Your task to perform on an android device: Go to calendar. Show me events next week Image 0: 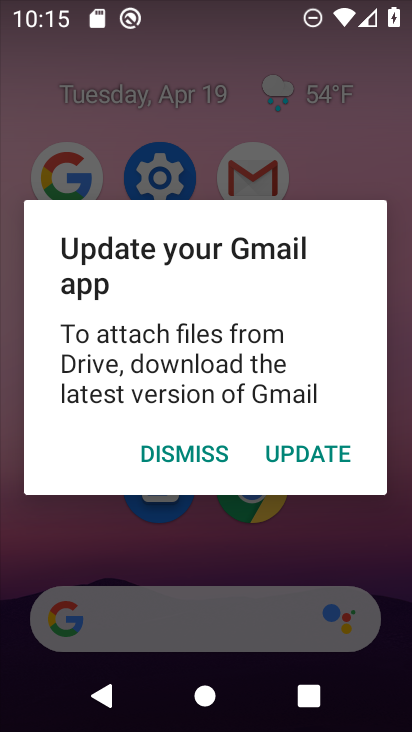
Step 0: press home button
Your task to perform on an android device: Go to calendar. Show me events next week Image 1: 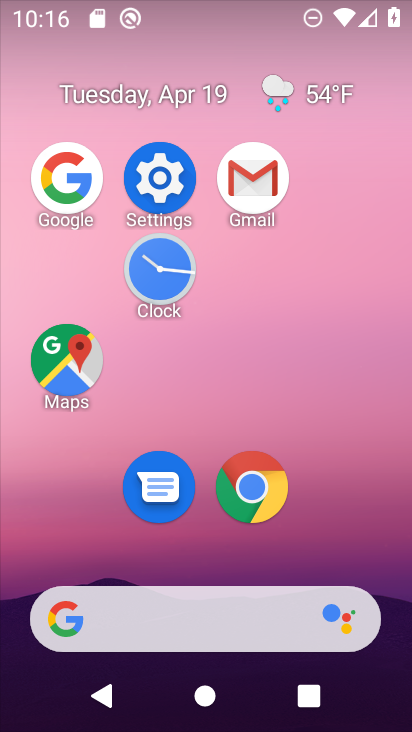
Step 1: drag from (240, 544) to (262, 103)
Your task to perform on an android device: Go to calendar. Show me events next week Image 2: 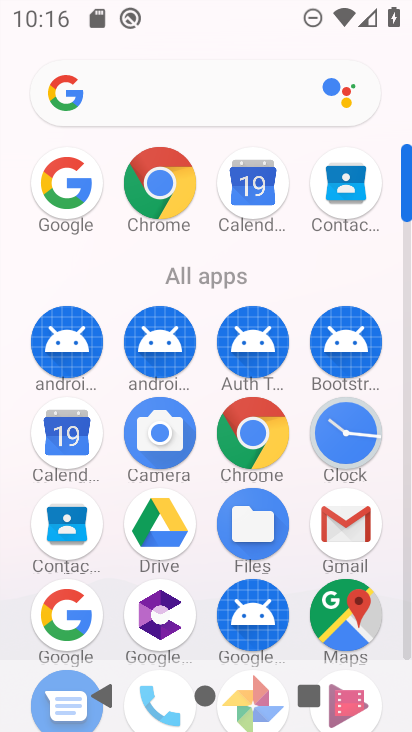
Step 2: click (66, 445)
Your task to perform on an android device: Go to calendar. Show me events next week Image 3: 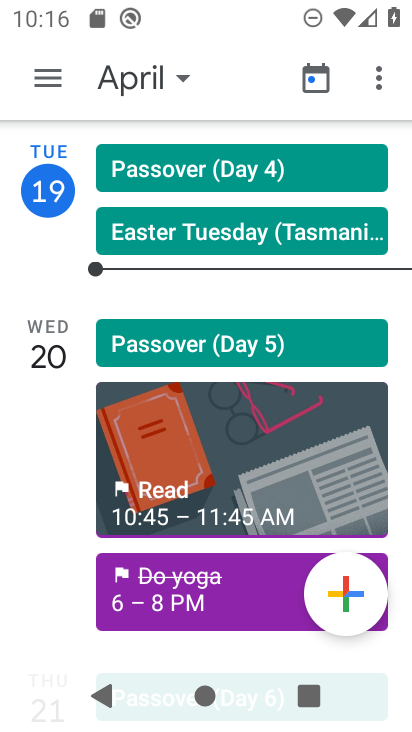
Step 3: click (58, 90)
Your task to perform on an android device: Go to calendar. Show me events next week Image 4: 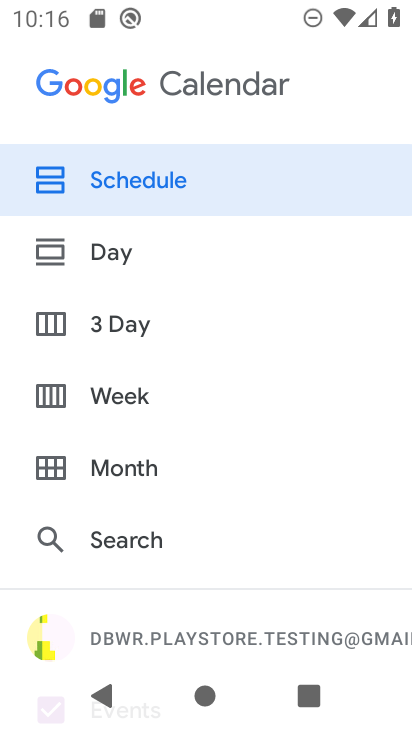
Step 4: click (102, 404)
Your task to perform on an android device: Go to calendar. Show me events next week Image 5: 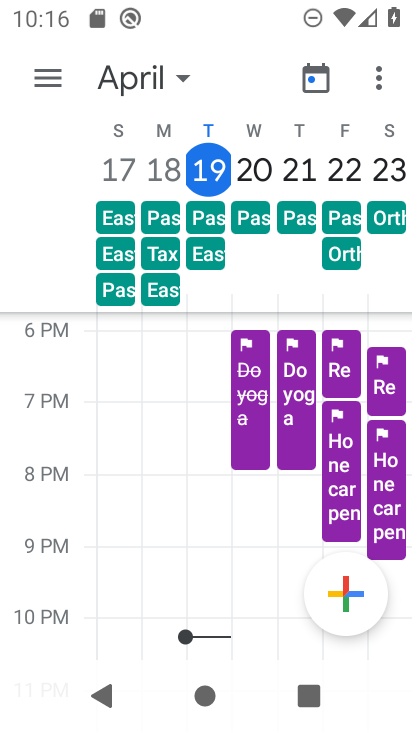
Step 5: task complete